Your task to perform on an android device: Toggle the flashlight Image 0: 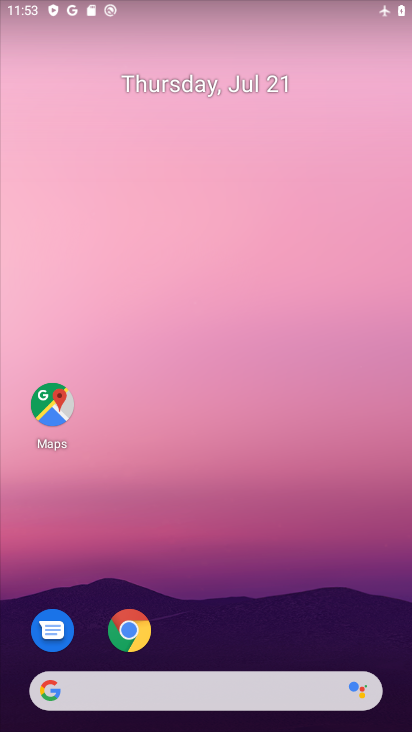
Step 0: drag from (226, 654) to (151, 99)
Your task to perform on an android device: Toggle the flashlight Image 1: 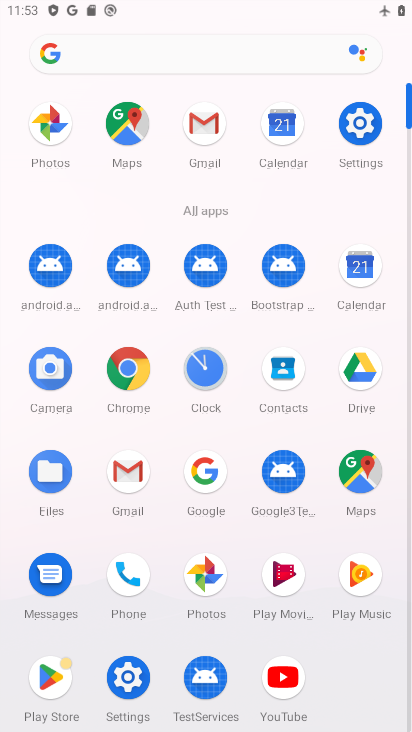
Step 1: click (360, 126)
Your task to perform on an android device: Toggle the flashlight Image 2: 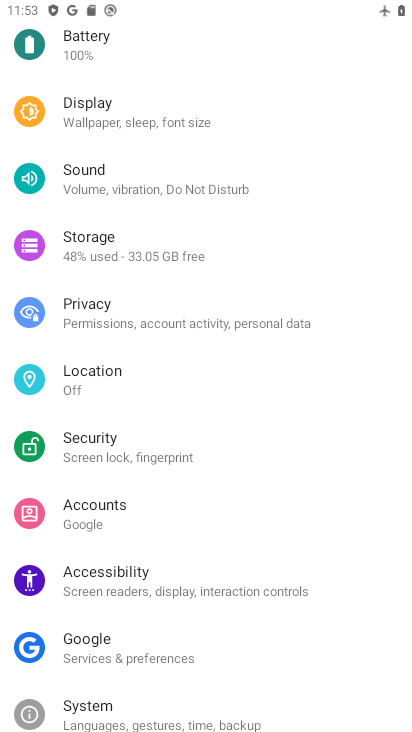
Step 2: task complete